Your task to perform on an android device: Go to display settings Image 0: 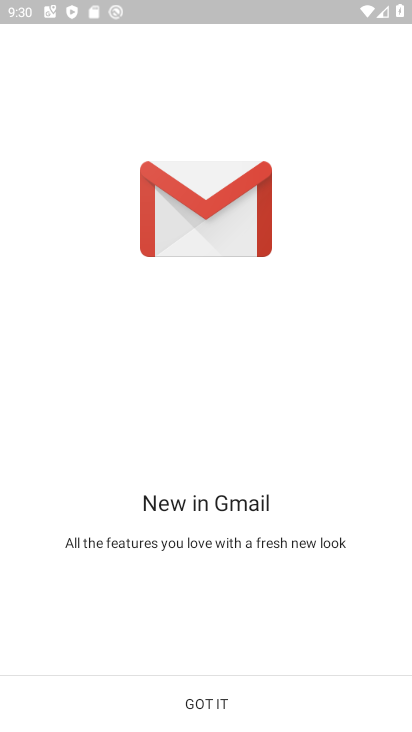
Step 0: press home button
Your task to perform on an android device: Go to display settings Image 1: 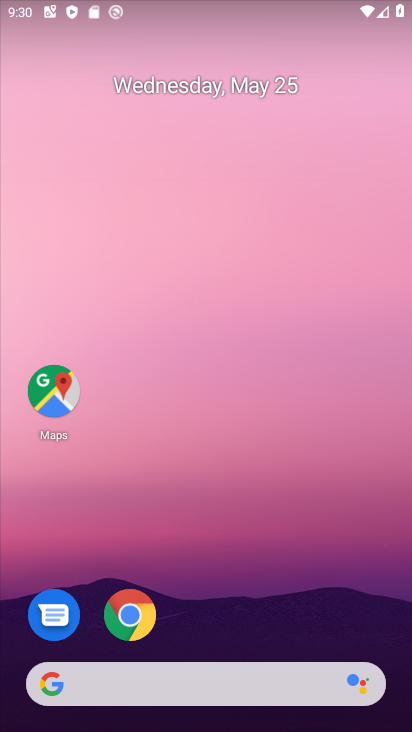
Step 1: drag from (199, 549) to (212, 45)
Your task to perform on an android device: Go to display settings Image 2: 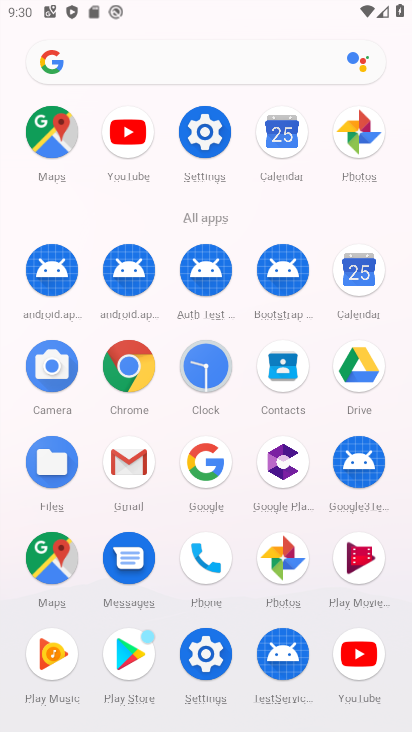
Step 2: click (199, 124)
Your task to perform on an android device: Go to display settings Image 3: 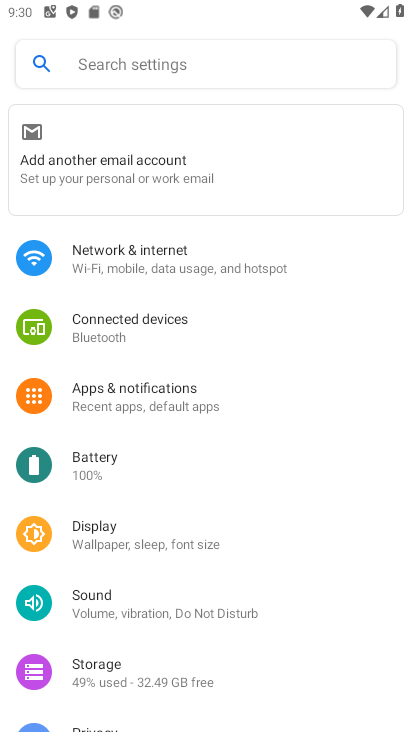
Step 3: click (163, 542)
Your task to perform on an android device: Go to display settings Image 4: 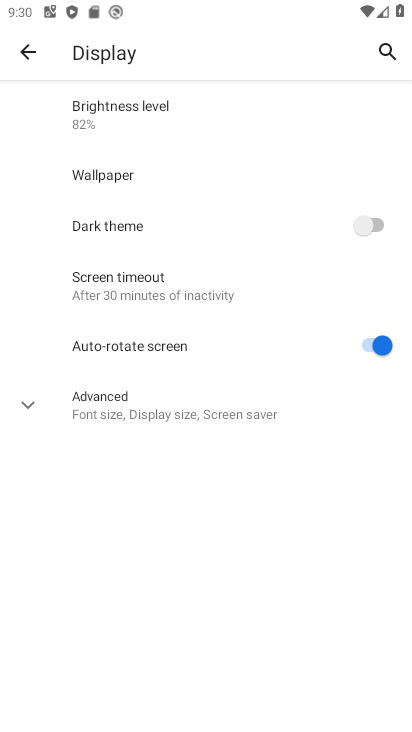
Step 4: task complete